Your task to perform on an android device: turn off location history Image 0: 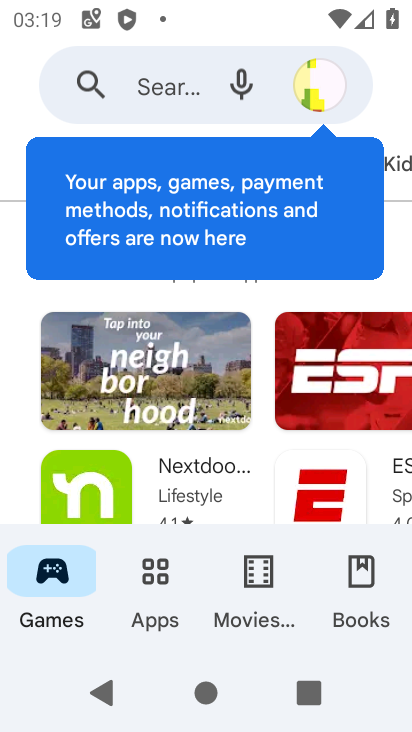
Step 0: press home button
Your task to perform on an android device: turn off location history Image 1: 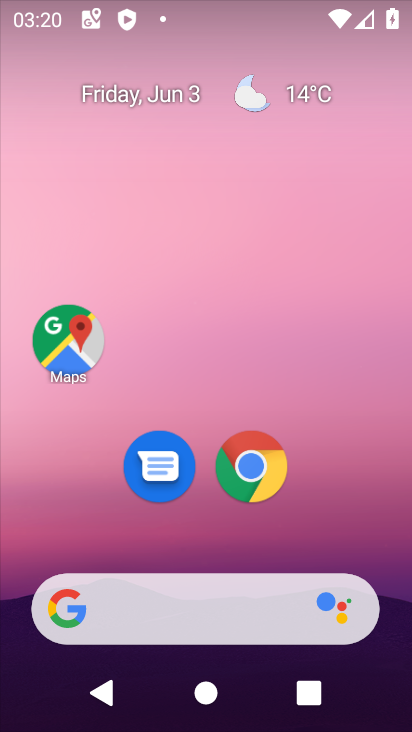
Step 1: drag from (202, 519) to (230, 75)
Your task to perform on an android device: turn off location history Image 2: 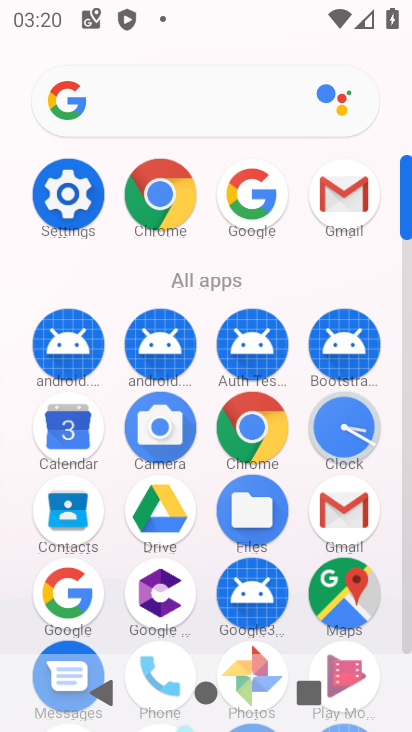
Step 2: click (62, 185)
Your task to perform on an android device: turn off location history Image 3: 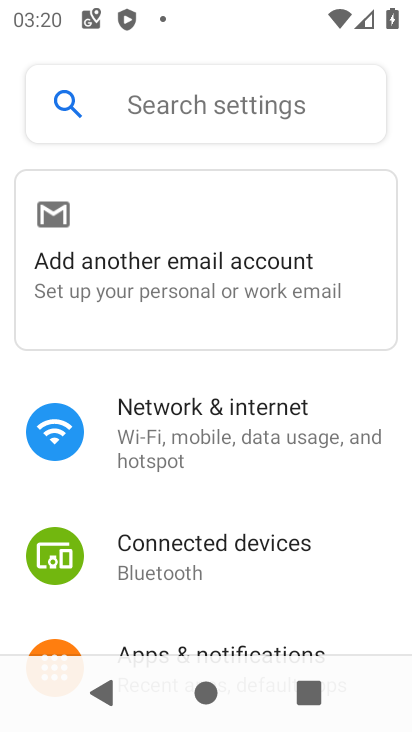
Step 3: drag from (208, 626) to (269, 147)
Your task to perform on an android device: turn off location history Image 4: 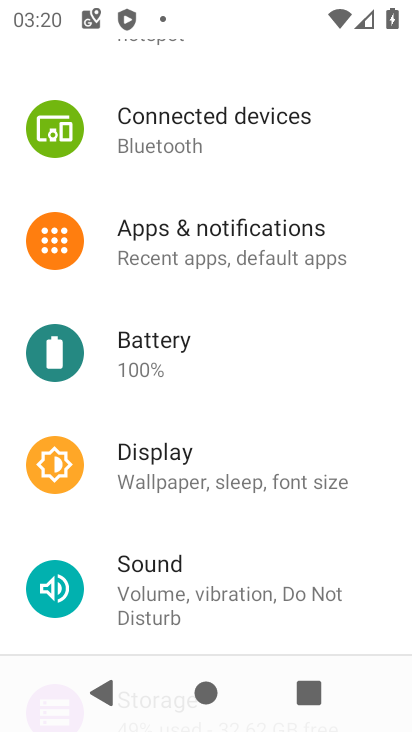
Step 4: drag from (231, 590) to (267, 166)
Your task to perform on an android device: turn off location history Image 5: 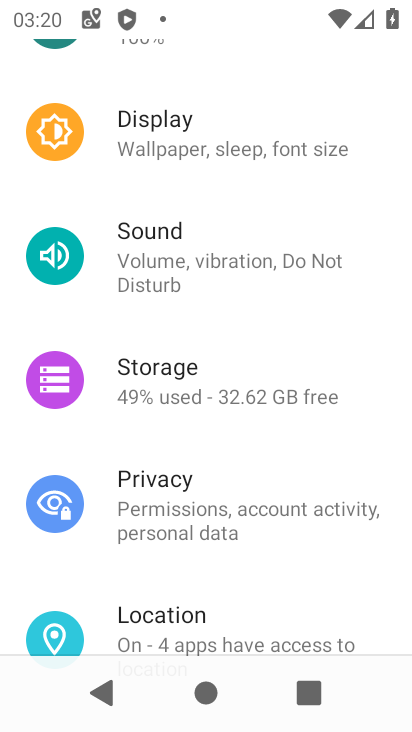
Step 5: click (224, 618)
Your task to perform on an android device: turn off location history Image 6: 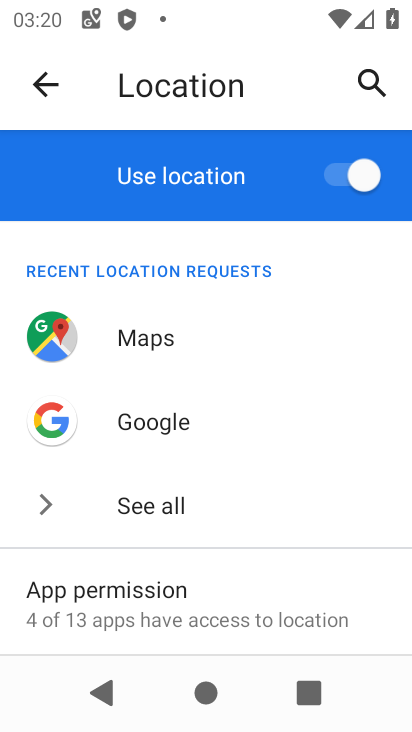
Step 6: drag from (211, 634) to (249, 142)
Your task to perform on an android device: turn off location history Image 7: 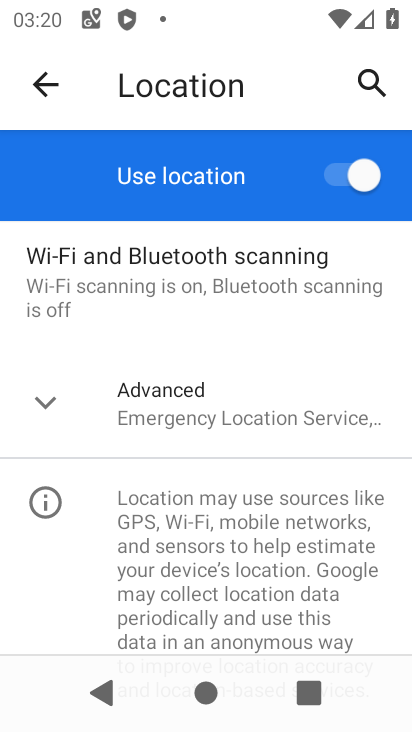
Step 7: click (46, 397)
Your task to perform on an android device: turn off location history Image 8: 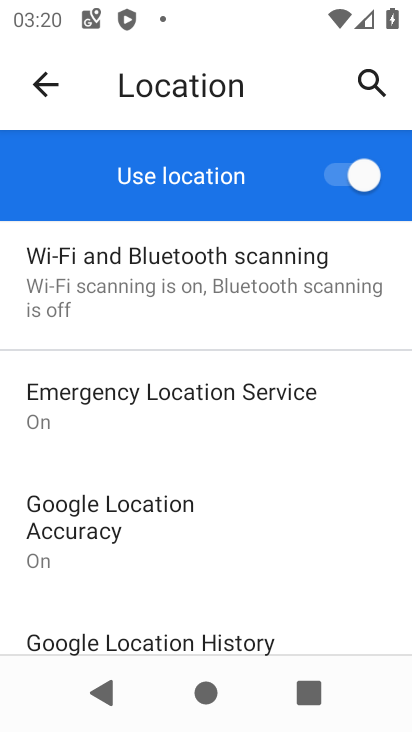
Step 8: drag from (211, 601) to (231, 308)
Your task to perform on an android device: turn off location history Image 9: 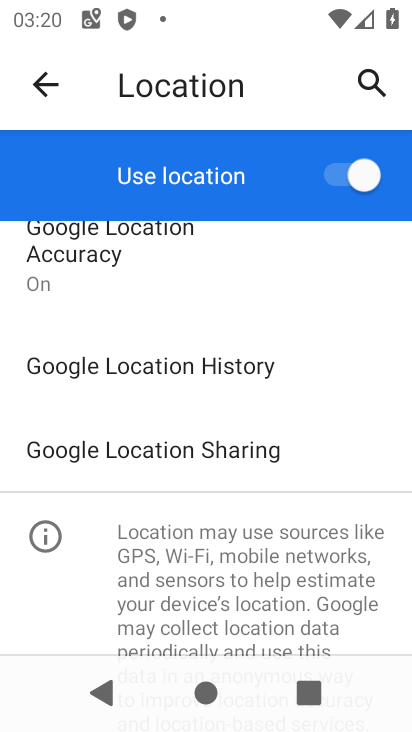
Step 9: click (292, 359)
Your task to perform on an android device: turn off location history Image 10: 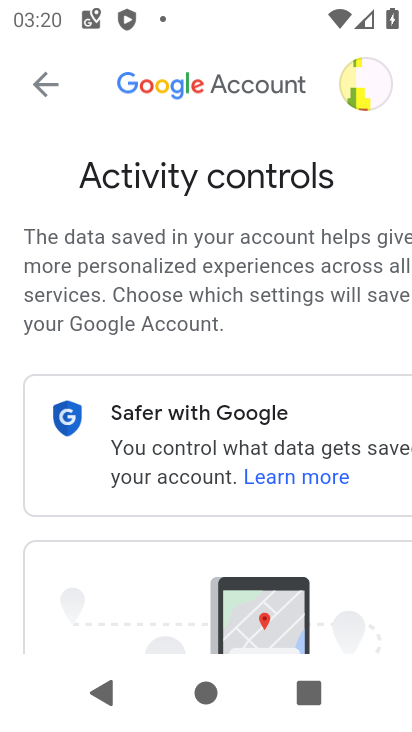
Step 10: drag from (165, 583) to (225, 271)
Your task to perform on an android device: turn off location history Image 11: 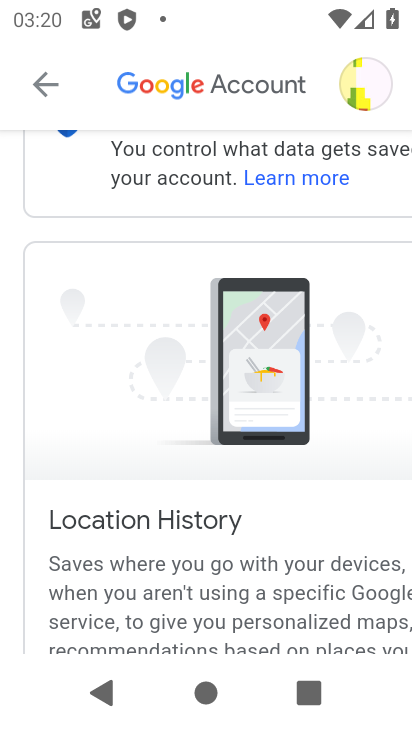
Step 11: drag from (211, 581) to (241, 155)
Your task to perform on an android device: turn off location history Image 12: 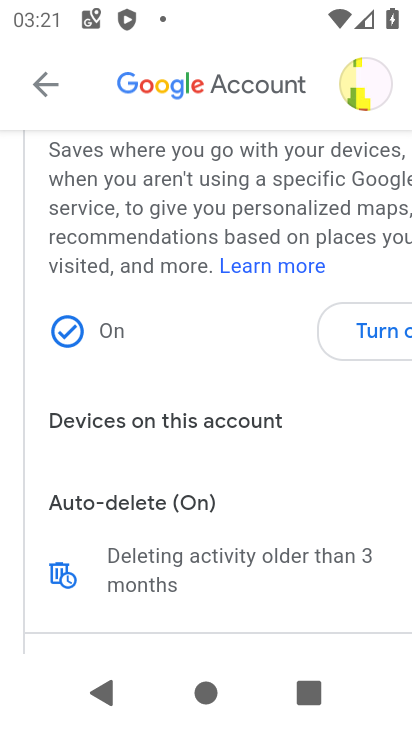
Step 12: click (375, 334)
Your task to perform on an android device: turn off location history Image 13: 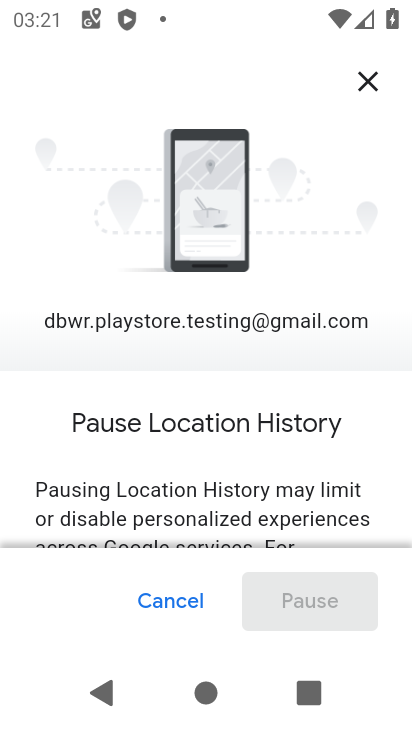
Step 13: drag from (276, 518) to (344, 51)
Your task to perform on an android device: turn off location history Image 14: 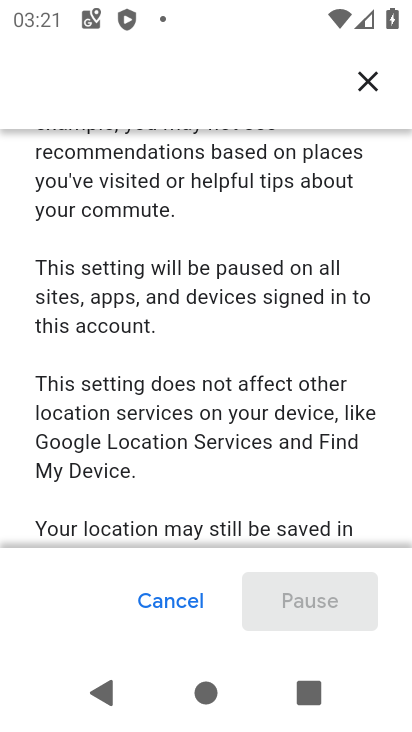
Step 14: drag from (254, 486) to (295, 102)
Your task to perform on an android device: turn off location history Image 15: 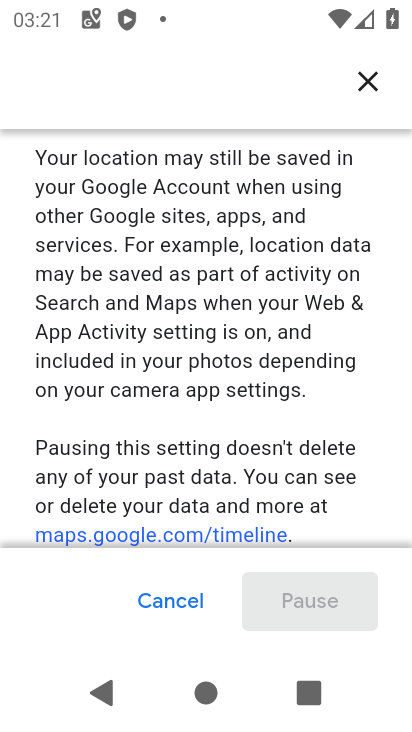
Step 15: drag from (288, 477) to (322, 86)
Your task to perform on an android device: turn off location history Image 16: 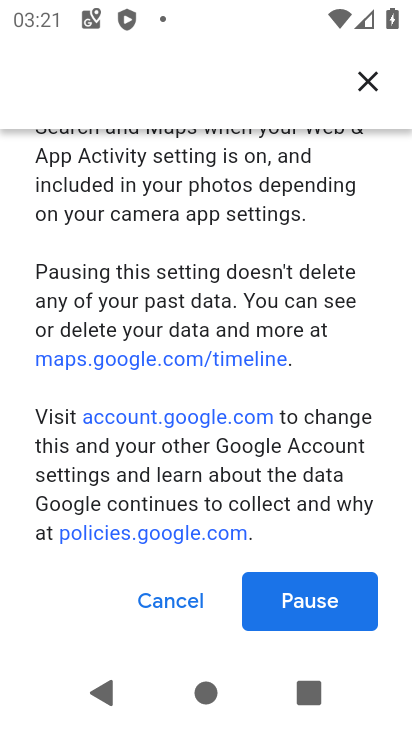
Step 16: click (309, 596)
Your task to perform on an android device: turn off location history Image 17: 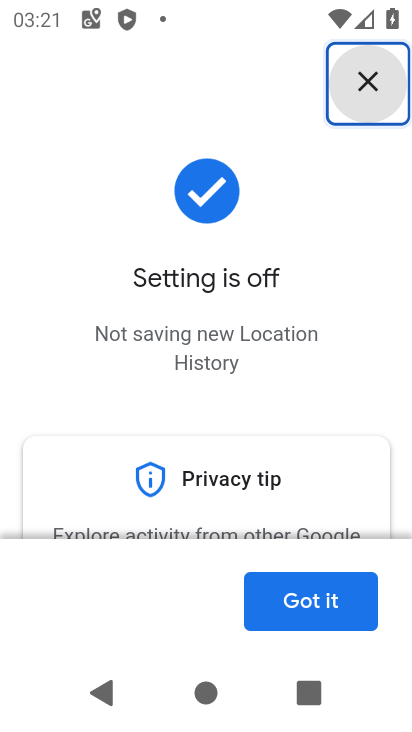
Step 17: click (309, 608)
Your task to perform on an android device: turn off location history Image 18: 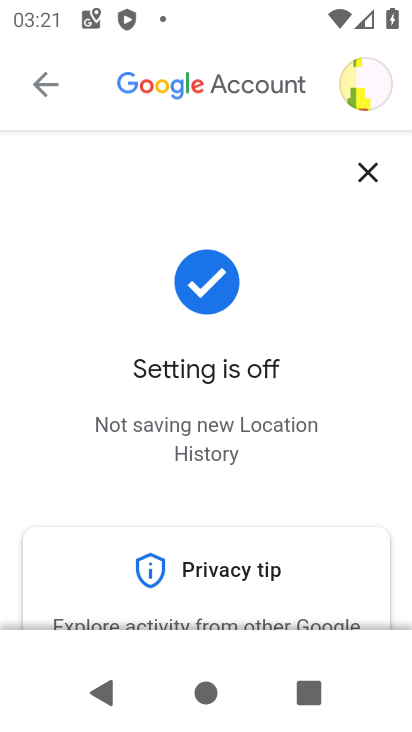
Step 18: task complete